Your task to perform on an android device: Go to Amazon Image 0: 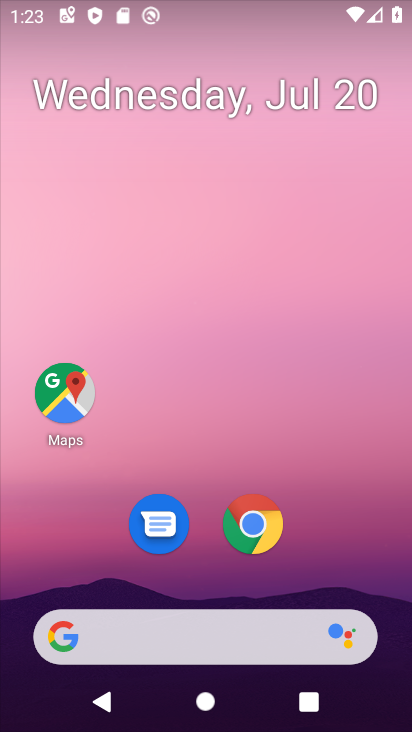
Step 0: click (262, 528)
Your task to perform on an android device: Go to Amazon Image 1: 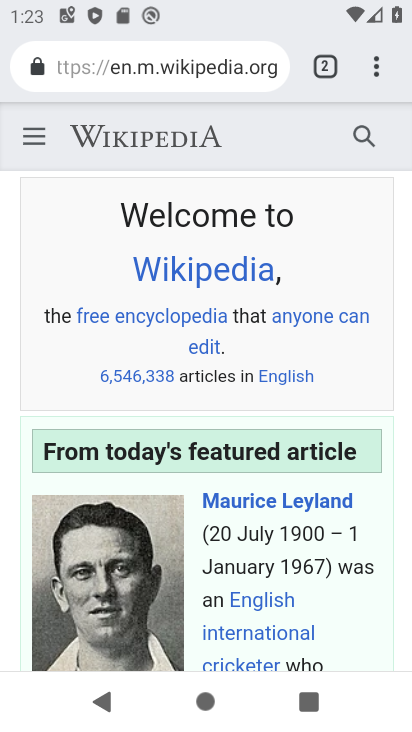
Step 1: click (376, 73)
Your task to perform on an android device: Go to Amazon Image 2: 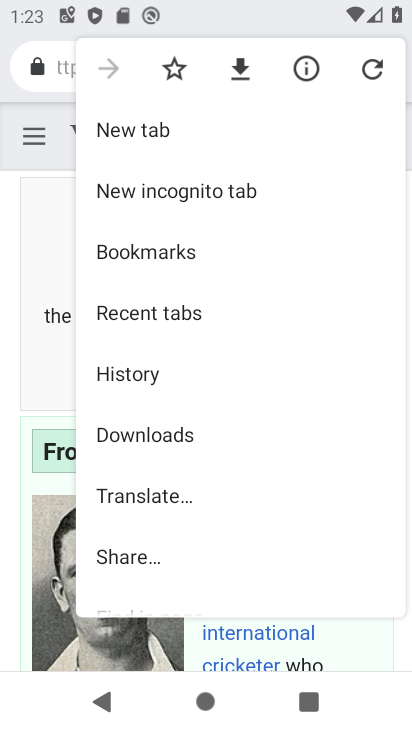
Step 2: click (273, 119)
Your task to perform on an android device: Go to Amazon Image 3: 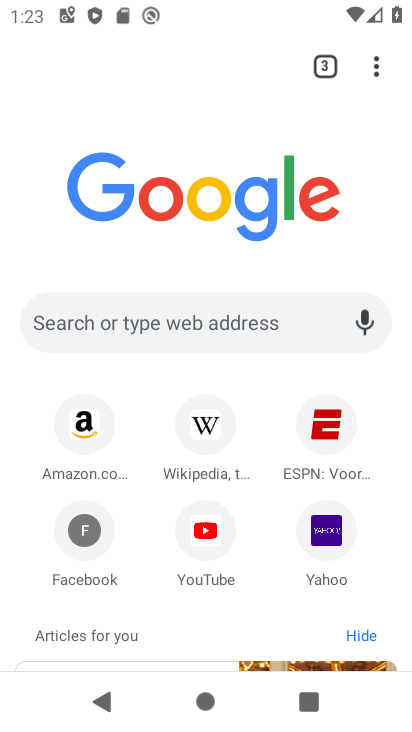
Step 3: click (83, 423)
Your task to perform on an android device: Go to Amazon Image 4: 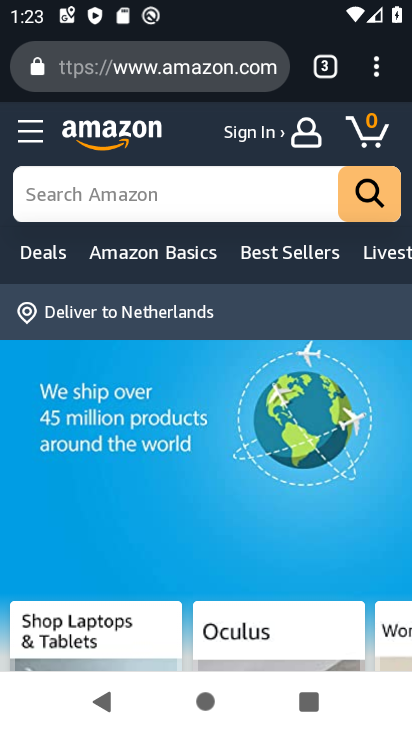
Step 4: task complete